Your task to perform on an android device: Add "lenovo thinkpad" to the cart on newegg.com, then select checkout. Image 0: 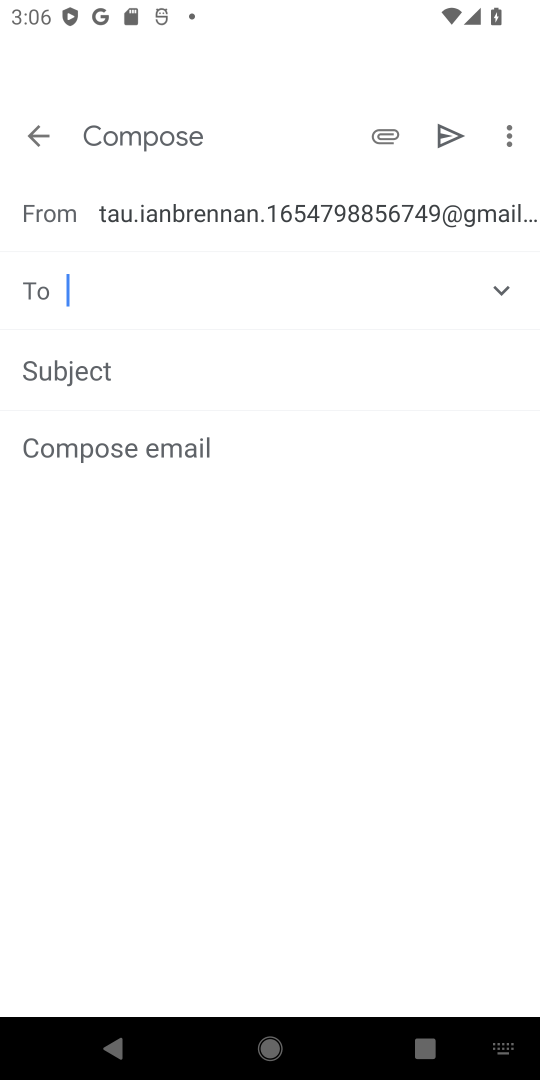
Step 0: press home button
Your task to perform on an android device: Add "lenovo thinkpad" to the cart on newegg.com, then select checkout. Image 1: 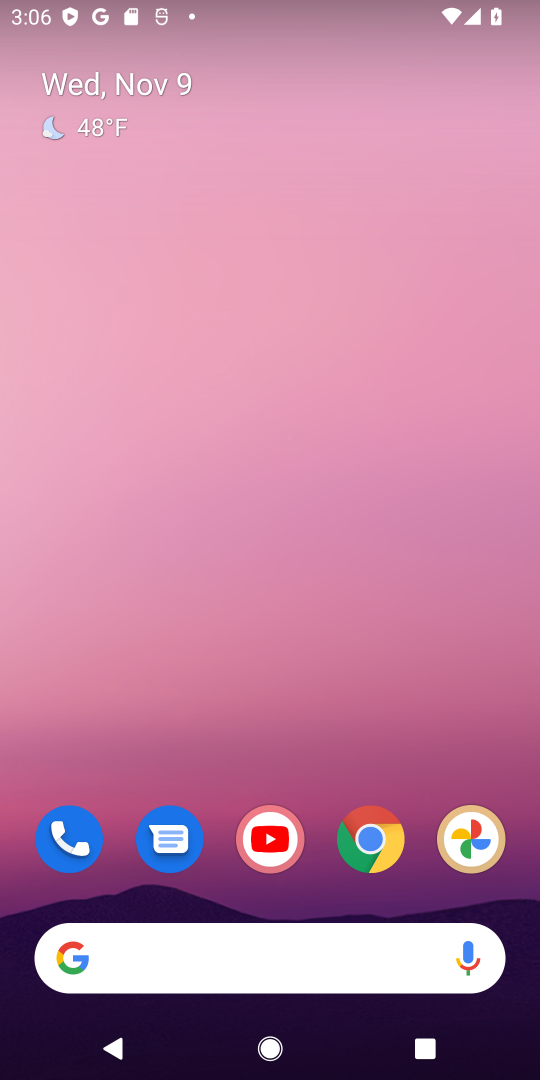
Step 1: drag from (325, 895) to (286, 169)
Your task to perform on an android device: Add "lenovo thinkpad" to the cart on newegg.com, then select checkout. Image 2: 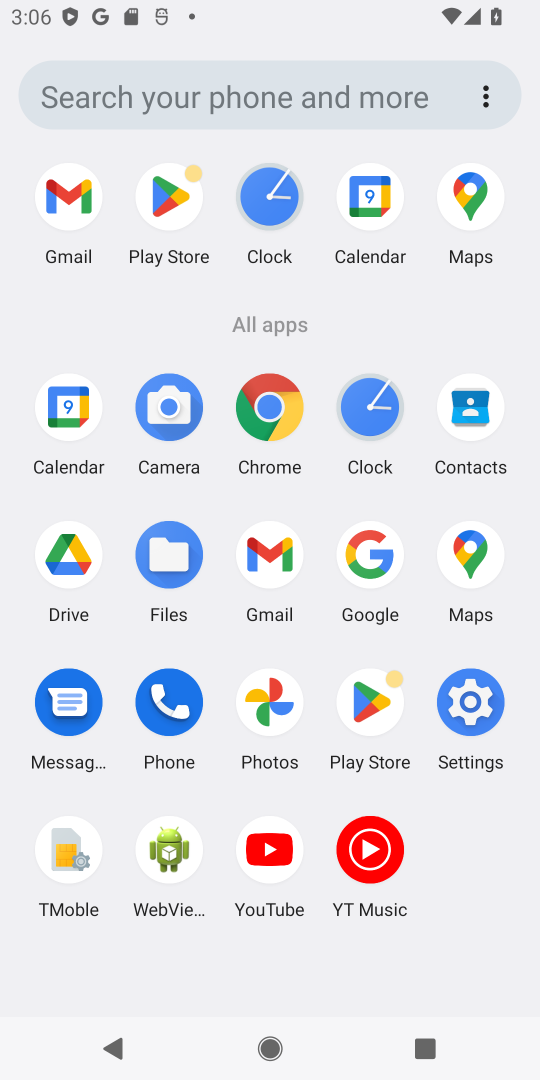
Step 2: click (267, 411)
Your task to perform on an android device: Add "lenovo thinkpad" to the cart on newegg.com, then select checkout. Image 3: 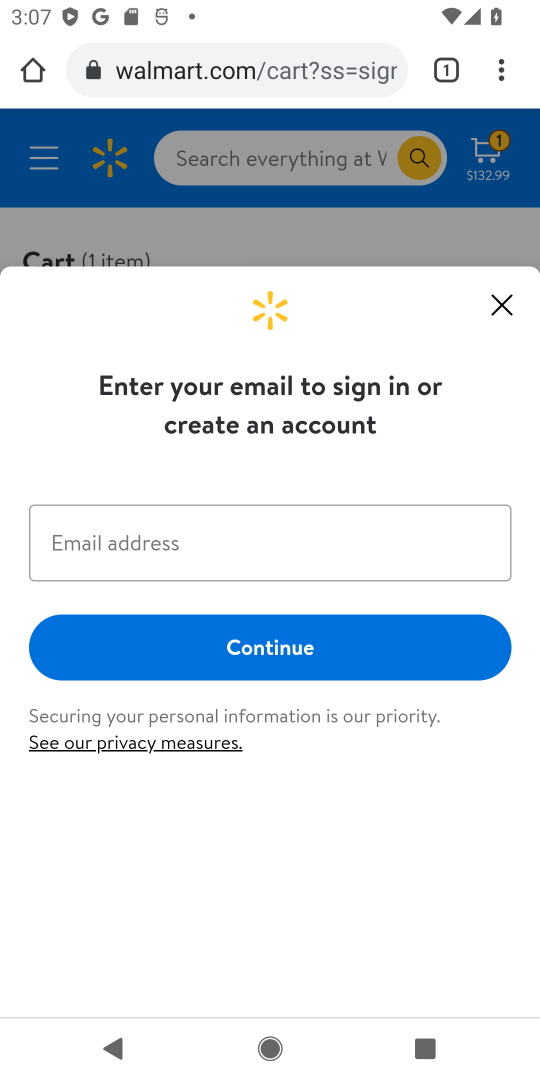
Step 3: click (258, 77)
Your task to perform on an android device: Add "lenovo thinkpad" to the cart on newegg.com, then select checkout. Image 4: 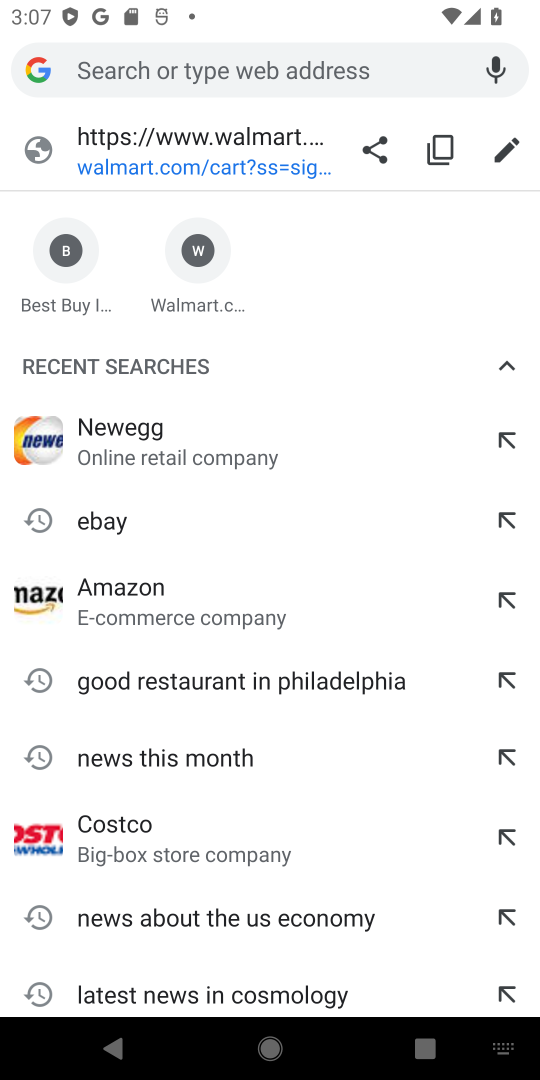
Step 4: type "newegg.com"
Your task to perform on an android device: Add "lenovo thinkpad" to the cart on newegg.com, then select checkout. Image 5: 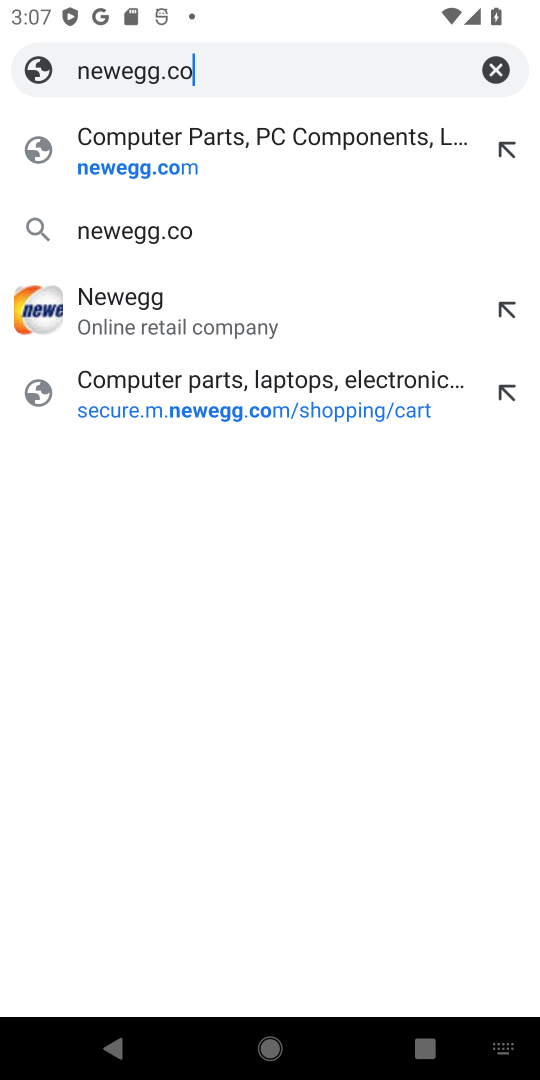
Step 5: press enter
Your task to perform on an android device: Add "lenovo thinkpad" to the cart on newegg.com, then select checkout. Image 6: 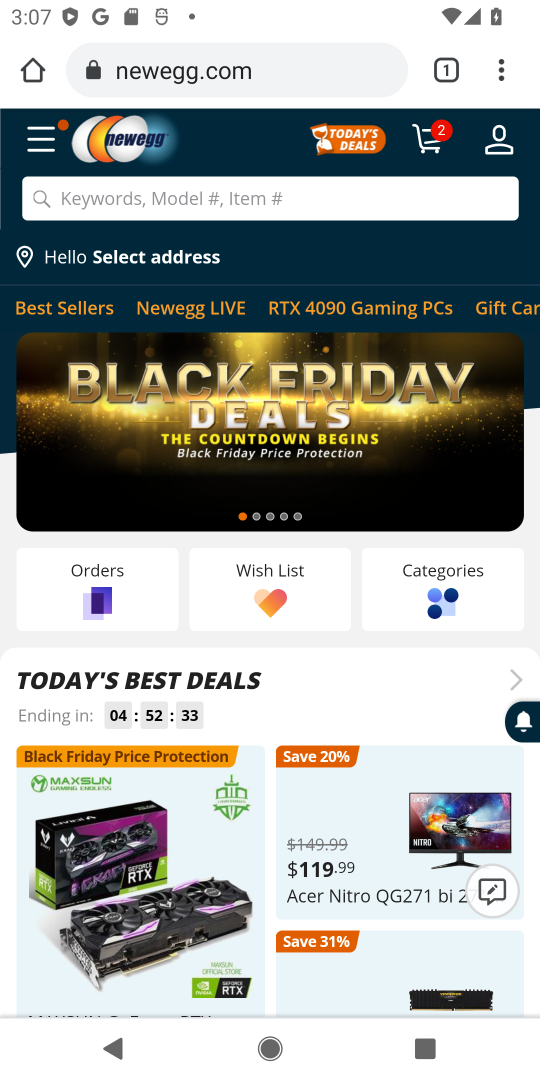
Step 6: click (332, 199)
Your task to perform on an android device: Add "lenovo thinkpad" to the cart on newegg.com, then select checkout. Image 7: 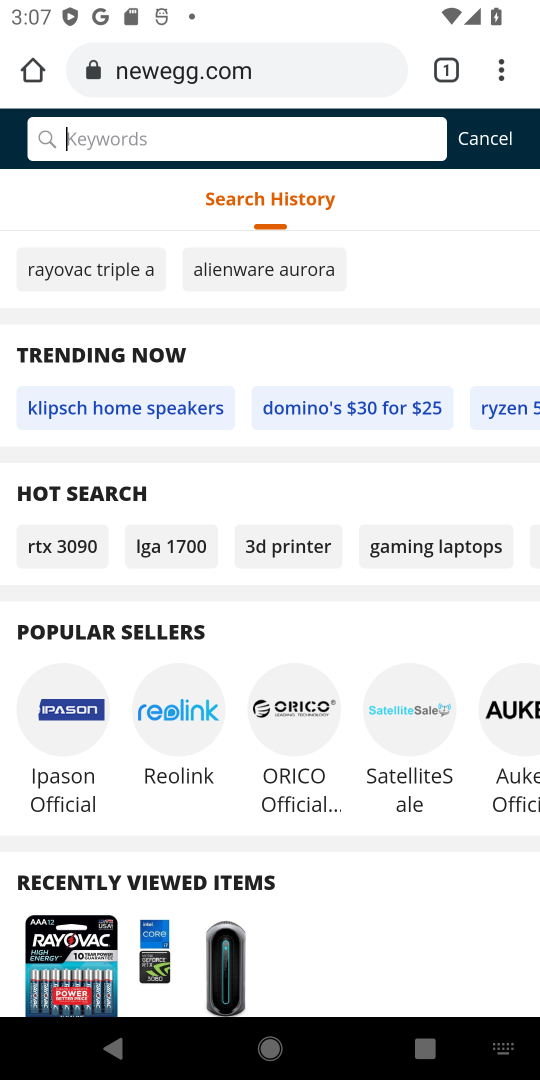
Step 7: type "lenovo thinkpad"
Your task to perform on an android device: Add "lenovo thinkpad" to the cart on newegg.com, then select checkout. Image 8: 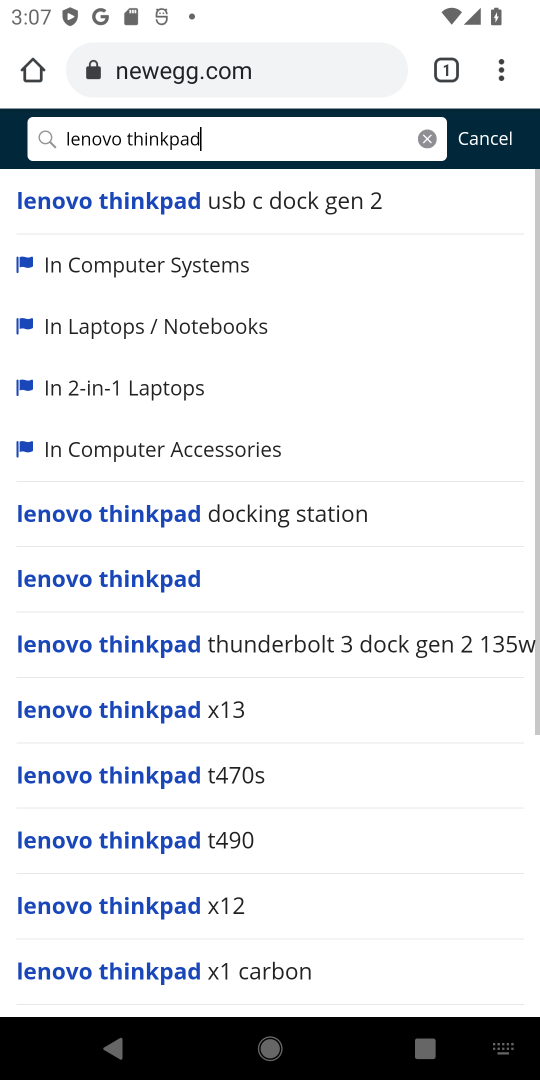
Step 8: press enter
Your task to perform on an android device: Add "lenovo thinkpad" to the cart on newegg.com, then select checkout. Image 9: 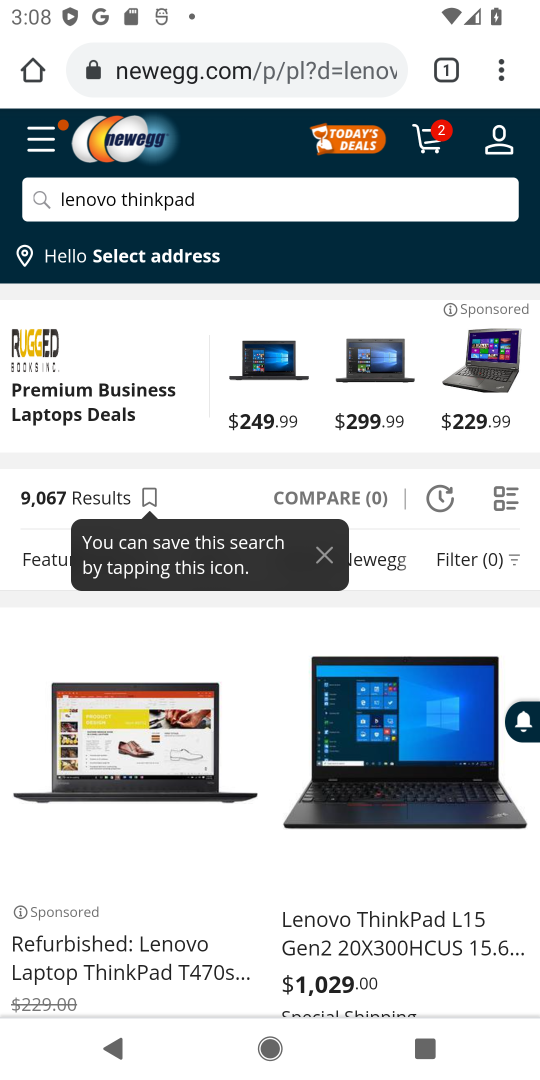
Step 9: click (396, 936)
Your task to perform on an android device: Add "lenovo thinkpad" to the cart on newegg.com, then select checkout. Image 10: 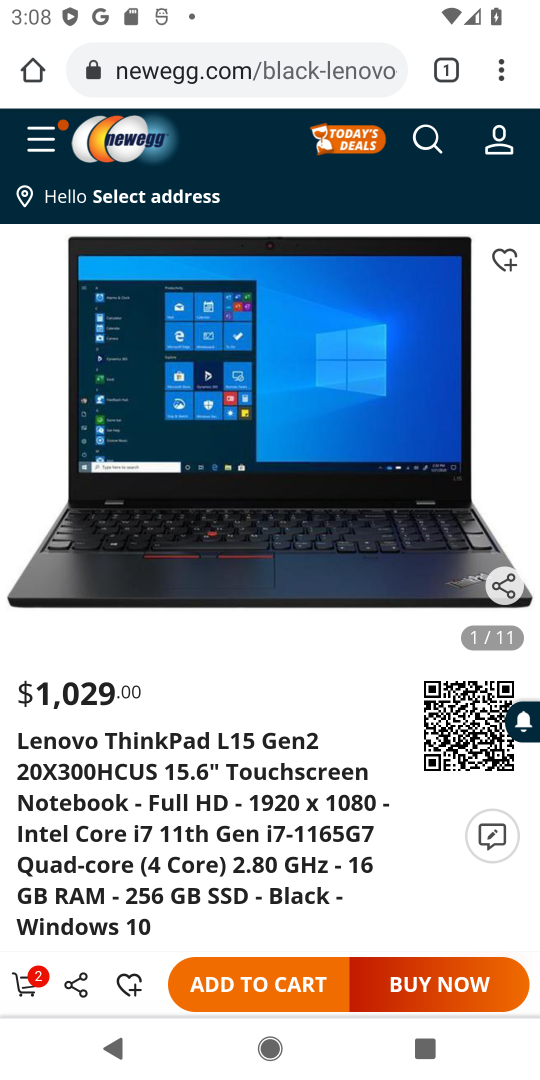
Step 10: click (242, 981)
Your task to perform on an android device: Add "lenovo thinkpad" to the cart on newegg.com, then select checkout. Image 11: 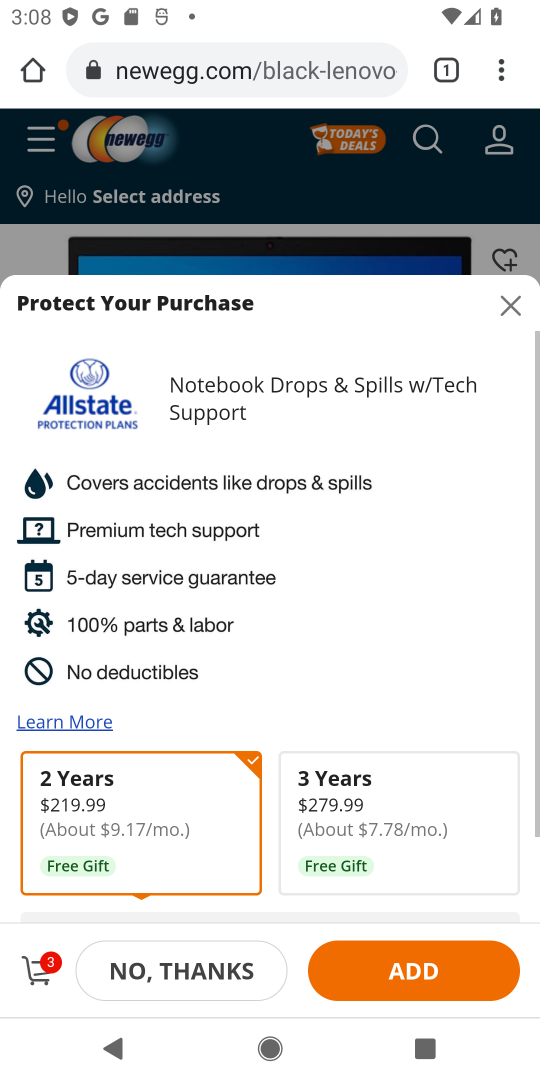
Step 11: click (46, 973)
Your task to perform on an android device: Add "lenovo thinkpad" to the cart on newegg.com, then select checkout. Image 12: 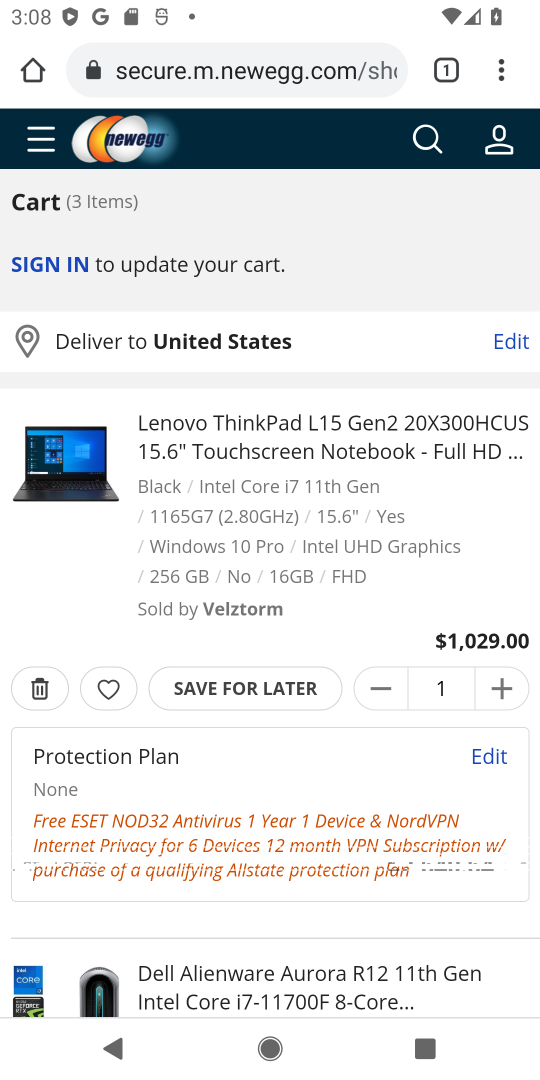
Step 12: click (183, 976)
Your task to perform on an android device: Add "lenovo thinkpad" to the cart on newegg.com, then select checkout. Image 13: 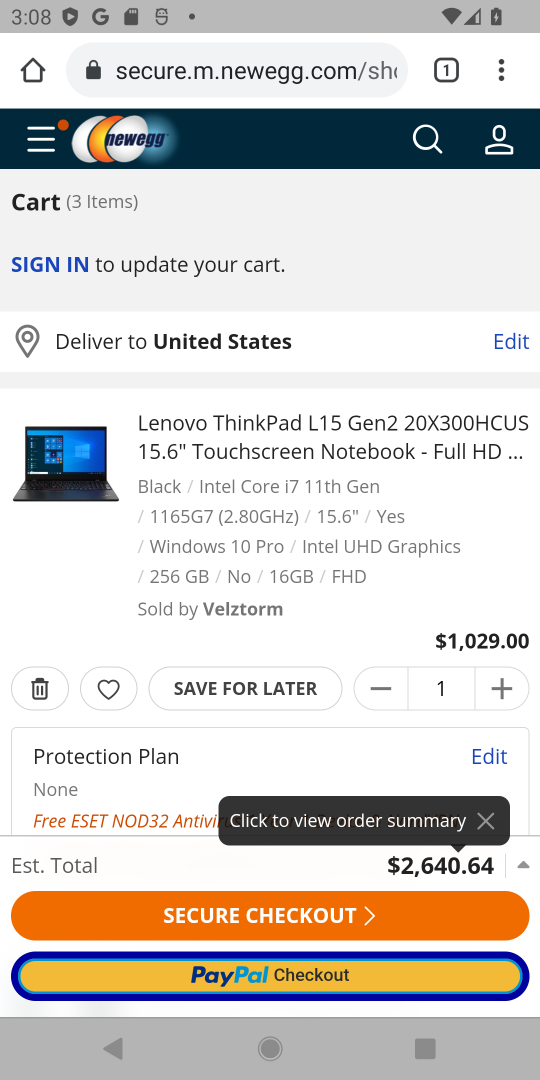
Step 13: click (210, 923)
Your task to perform on an android device: Add "lenovo thinkpad" to the cart on newegg.com, then select checkout. Image 14: 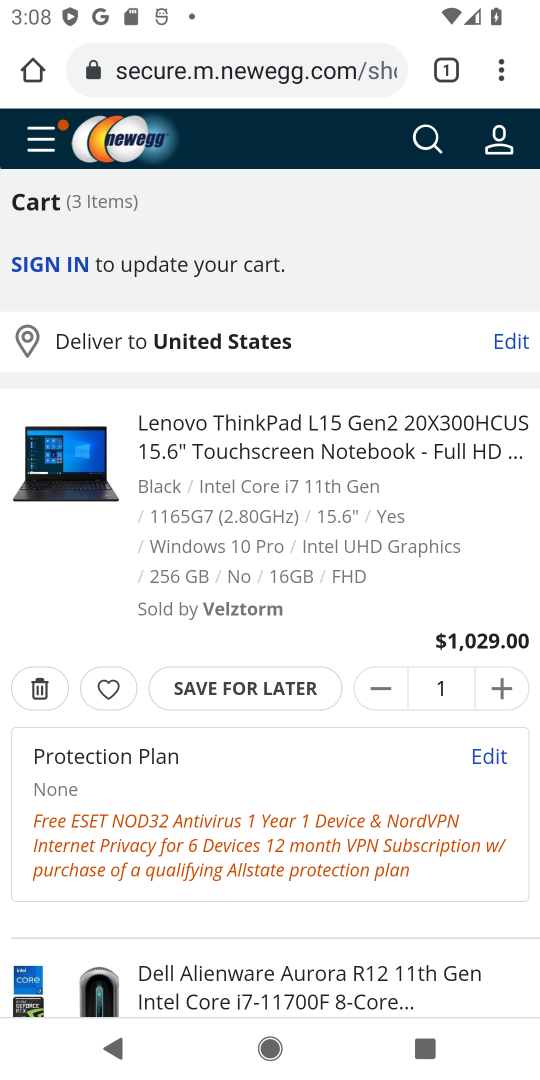
Step 14: click (210, 923)
Your task to perform on an android device: Add "lenovo thinkpad" to the cart on newegg.com, then select checkout. Image 15: 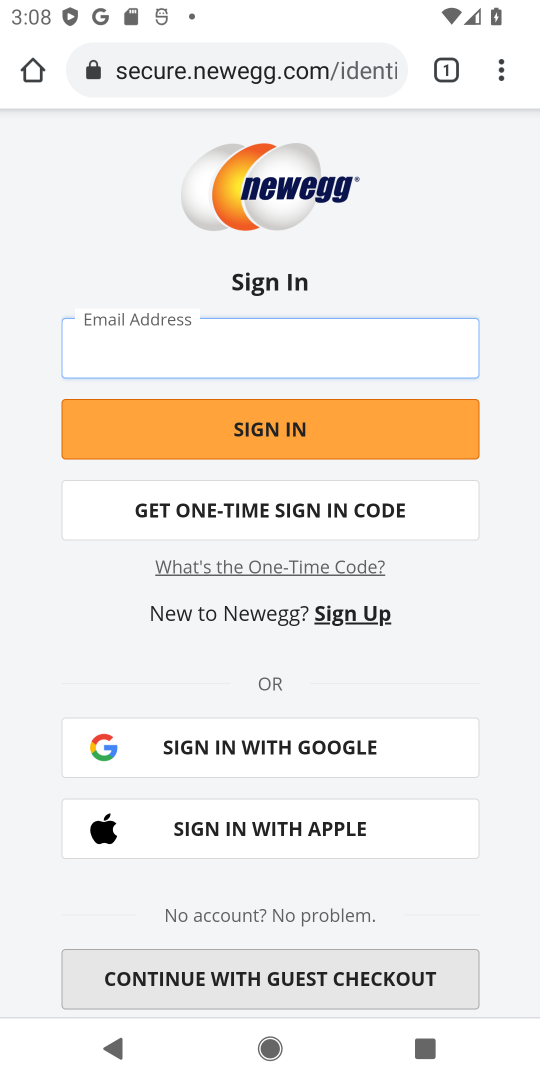
Step 15: task complete